Your task to perform on an android device: change alarm snooze length Image 0: 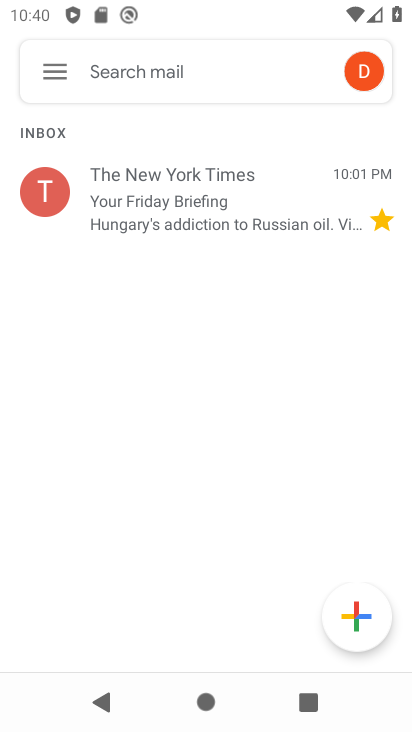
Step 0: press home button
Your task to perform on an android device: change alarm snooze length Image 1: 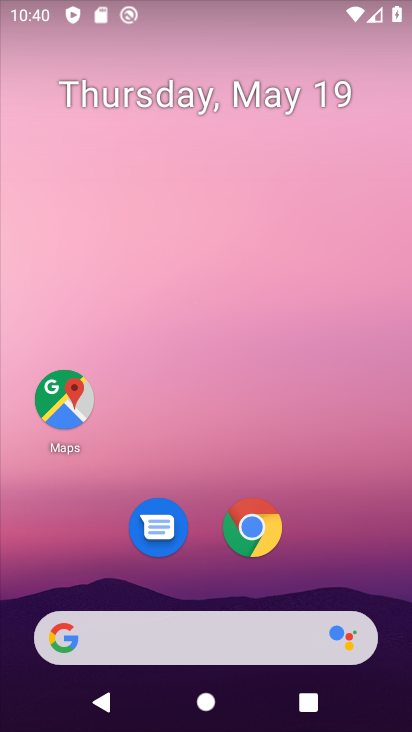
Step 1: drag from (218, 569) to (251, 2)
Your task to perform on an android device: change alarm snooze length Image 2: 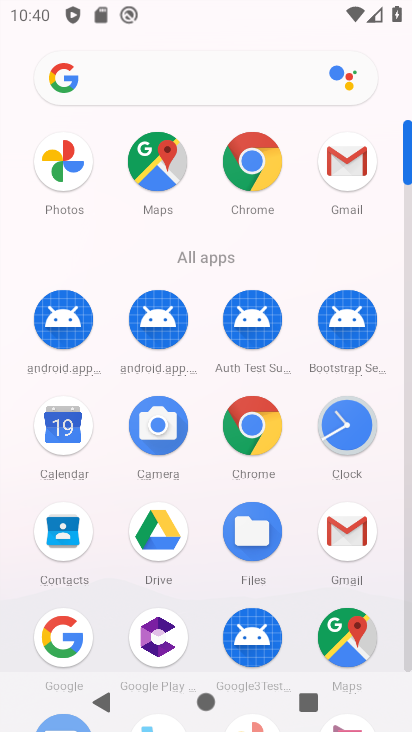
Step 2: click (349, 437)
Your task to perform on an android device: change alarm snooze length Image 3: 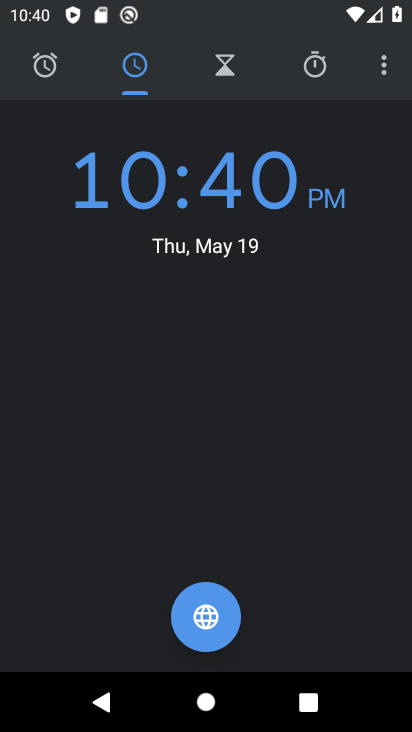
Step 3: click (383, 74)
Your task to perform on an android device: change alarm snooze length Image 4: 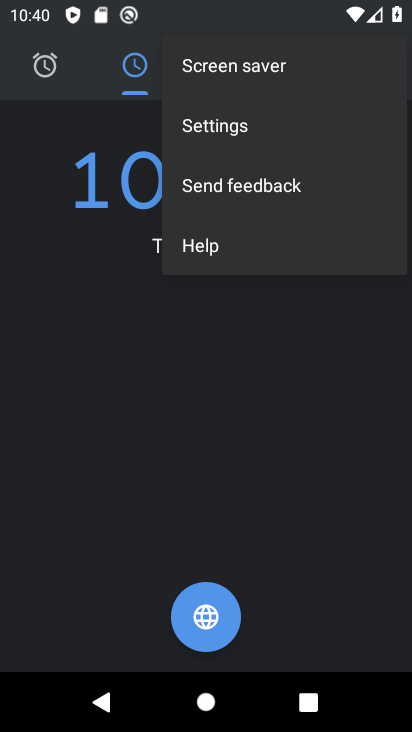
Step 4: click (231, 129)
Your task to perform on an android device: change alarm snooze length Image 5: 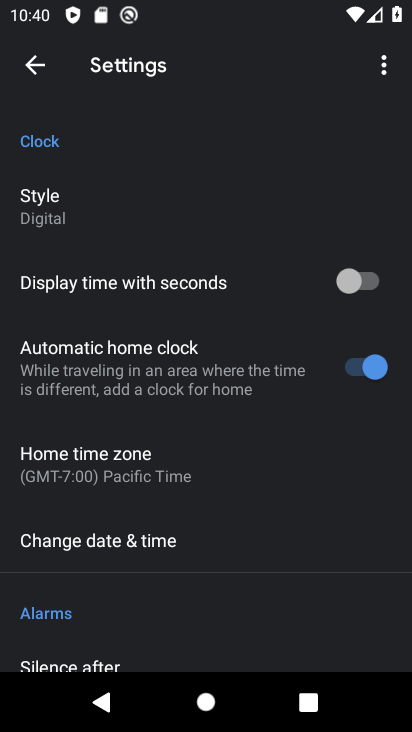
Step 5: drag from (127, 521) to (179, 252)
Your task to perform on an android device: change alarm snooze length Image 6: 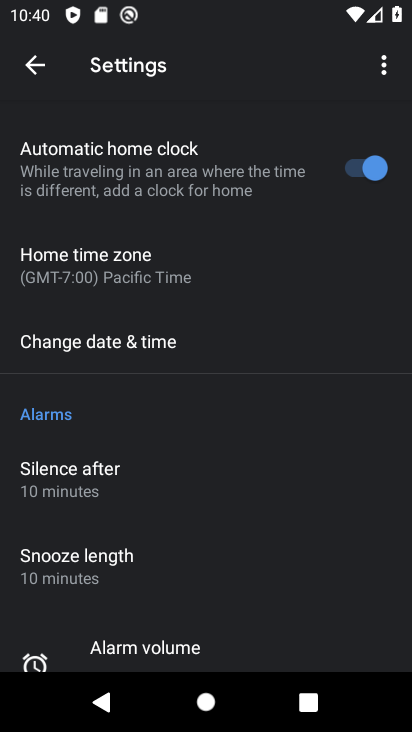
Step 6: drag from (127, 529) to (162, 323)
Your task to perform on an android device: change alarm snooze length Image 7: 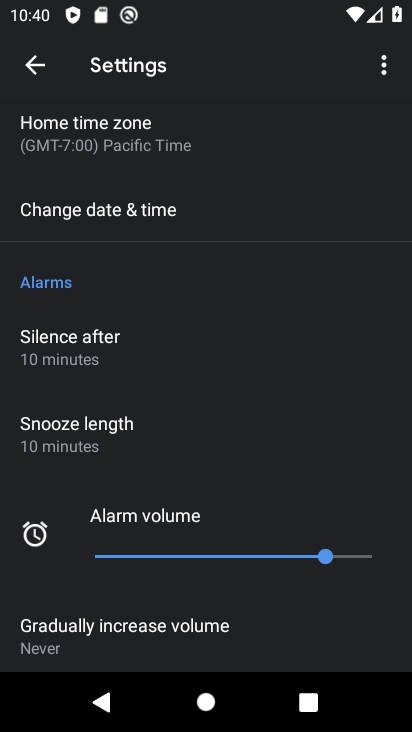
Step 7: click (112, 436)
Your task to perform on an android device: change alarm snooze length Image 8: 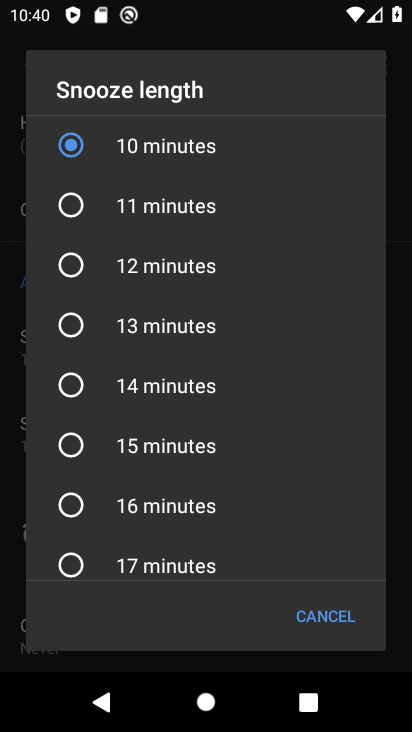
Step 8: click (99, 451)
Your task to perform on an android device: change alarm snooze length Image 9: 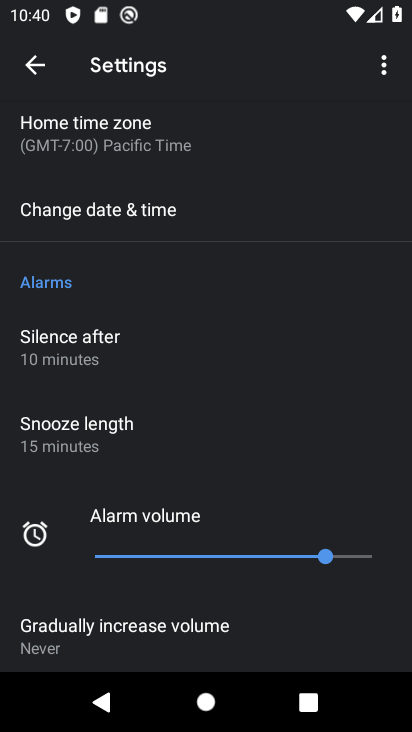
Step 9: task complete